Your task to perform on an android device: open app "Spotify: Music and Podcasts" Image 0: 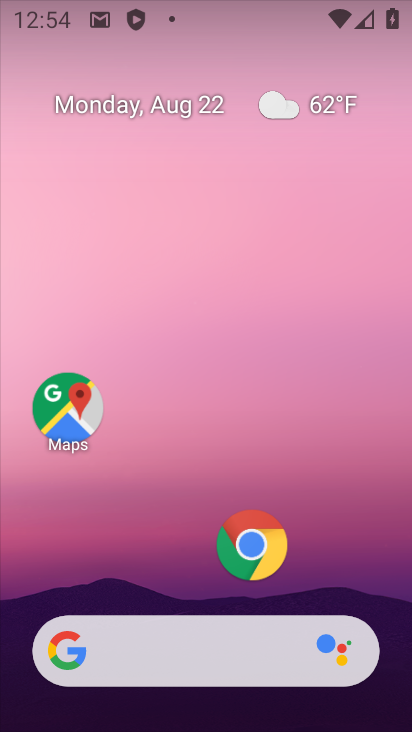
Step 0: drag from (94, 582) to (197, 44)
Your task to perform on an android device: open app "Spotify: Music and Podcasts" Image 1: 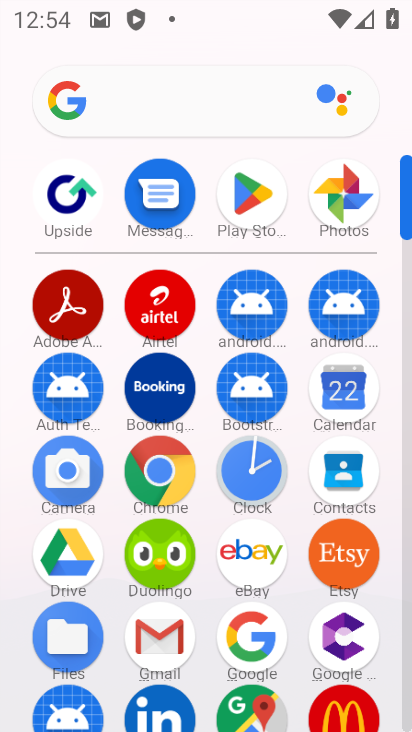
Step 1: click (261, 180)
Your task to perform on an android device: open app "Spotify: Music and Podcasts" Image 2: 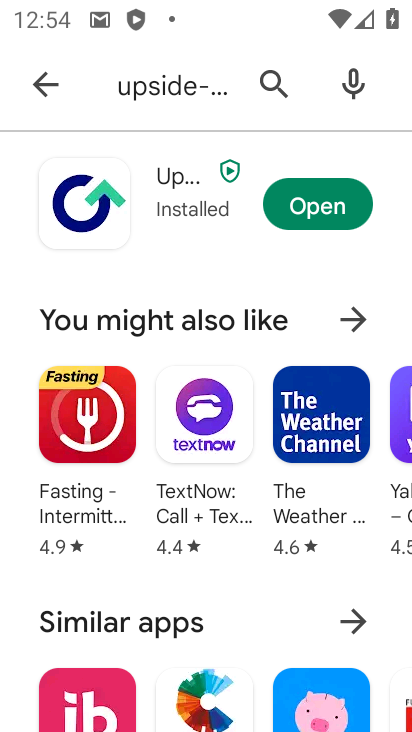
Step 2: click (269, 65)
Your task to perform on an android device: open app "Spotify: Music and Podcasts" Image 3: 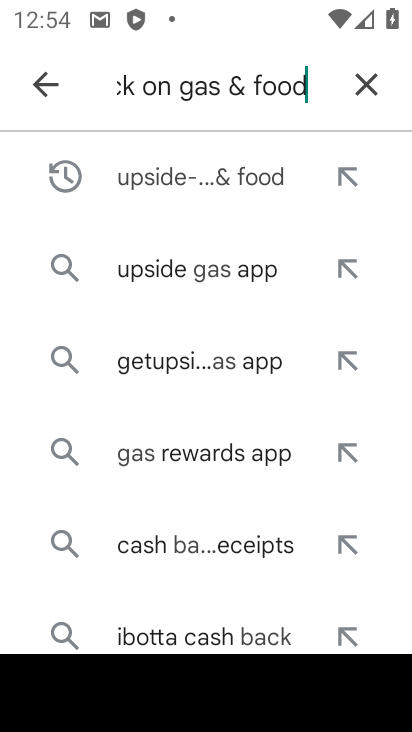
Step 3: click (385, 81)
Your task to perform on an android device: open app "Spotify: Music and Podcasts" Image 4: 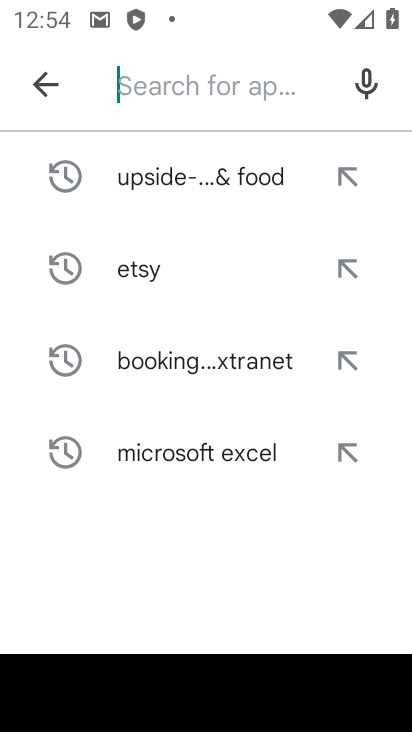
Step 4: click (165, 101)
Your task to perform on an android device: open app "Spotify: Music and Podcasts" Image 5: 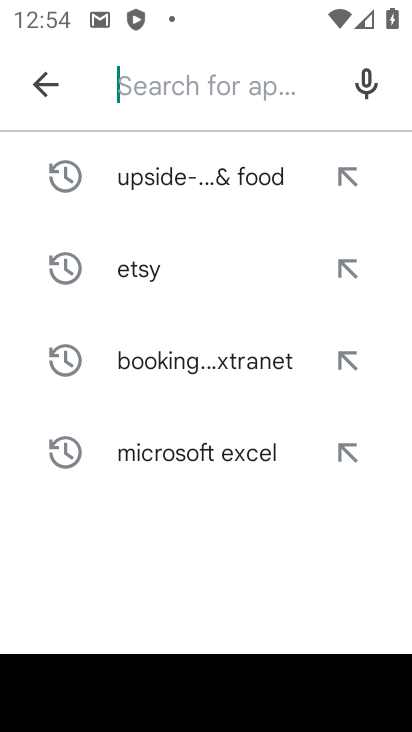
Step 5: click (129, 72)
Your task to perform on an android device: open app "Spotify: Music and Podcasts" Image 6: 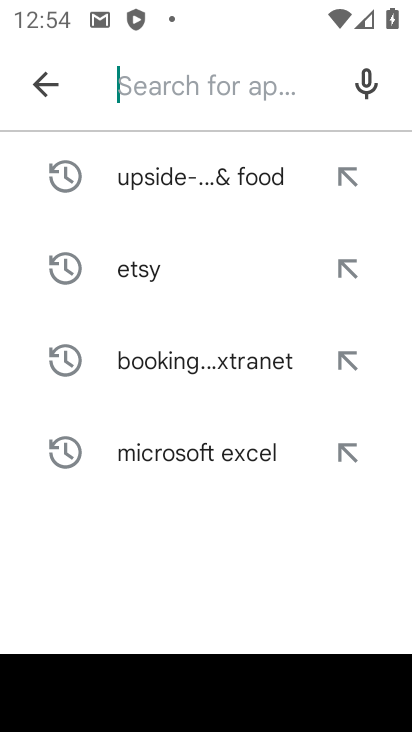
Step 6: type "Spotify: Music and Podcasts"
Your task to perform on an android device: open app "Spotify: Music and Podcasts" Image 7: 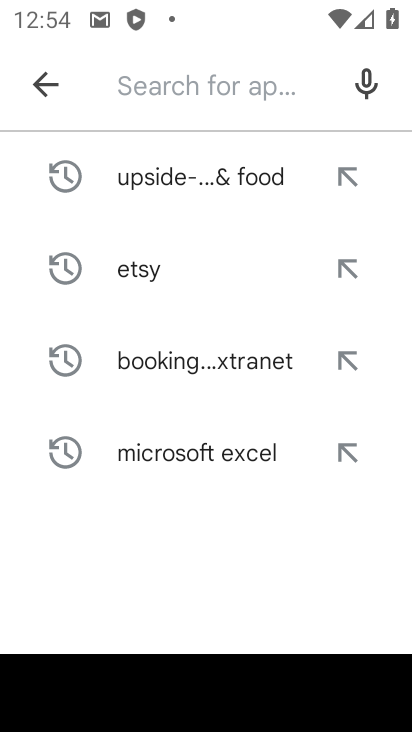
Step 7: click (182, 569)
Your task to perform on an android device: open app "Spotify: Music and Podcasts" Image 8: 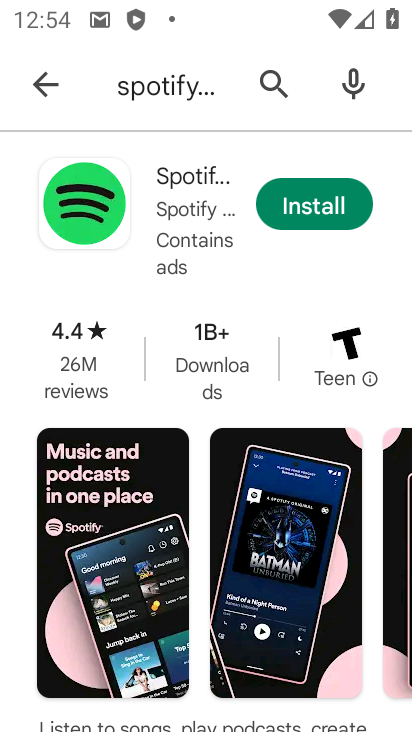
Step 8: task complete